Your task to perform on an android device: uninstall "PlayWell" Image 0: 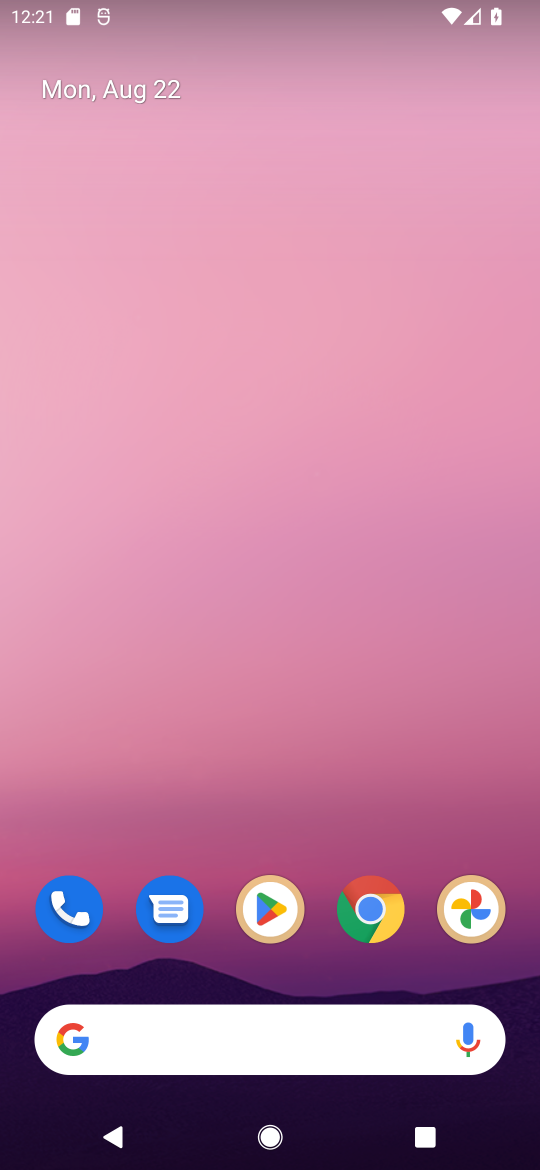
Step 0: click (271, 896)
Your task to perform on an android device: uninstall "PlayWell" Image 1: 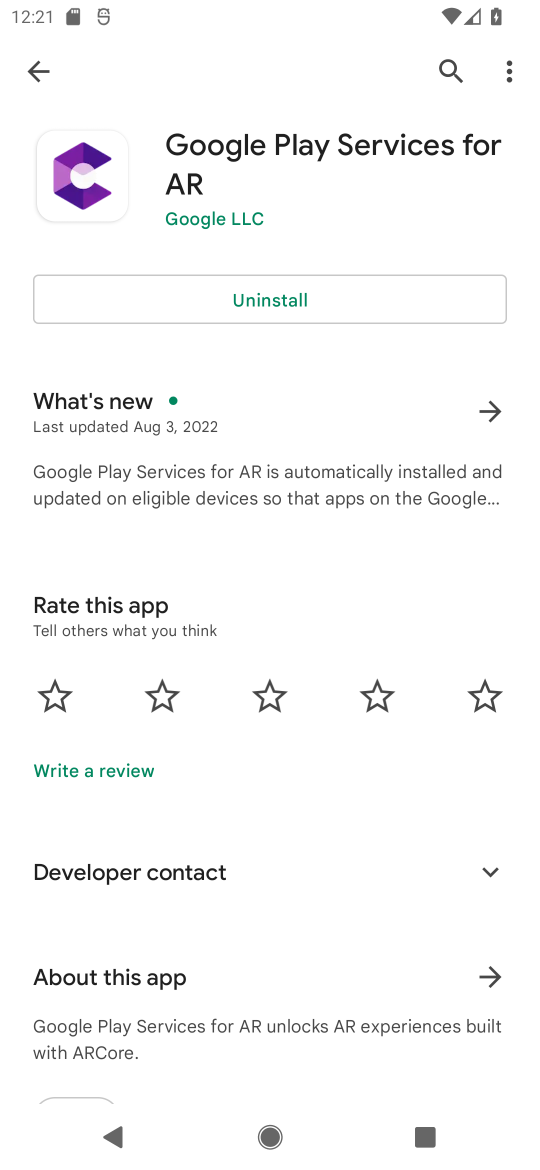
Step 1: click (455, 85)
Your task to perform on an android device: uninstall "PlayWell" Image 2: 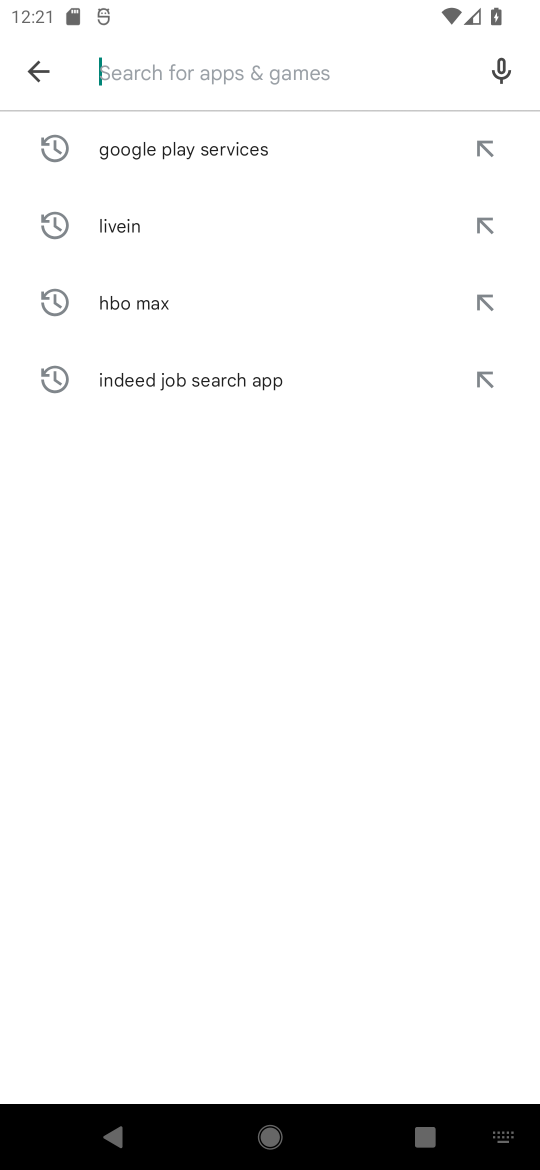
Step 2: click (258, 61)
Your task to perform on an android device: uninstall "PlayWell" Image 3: 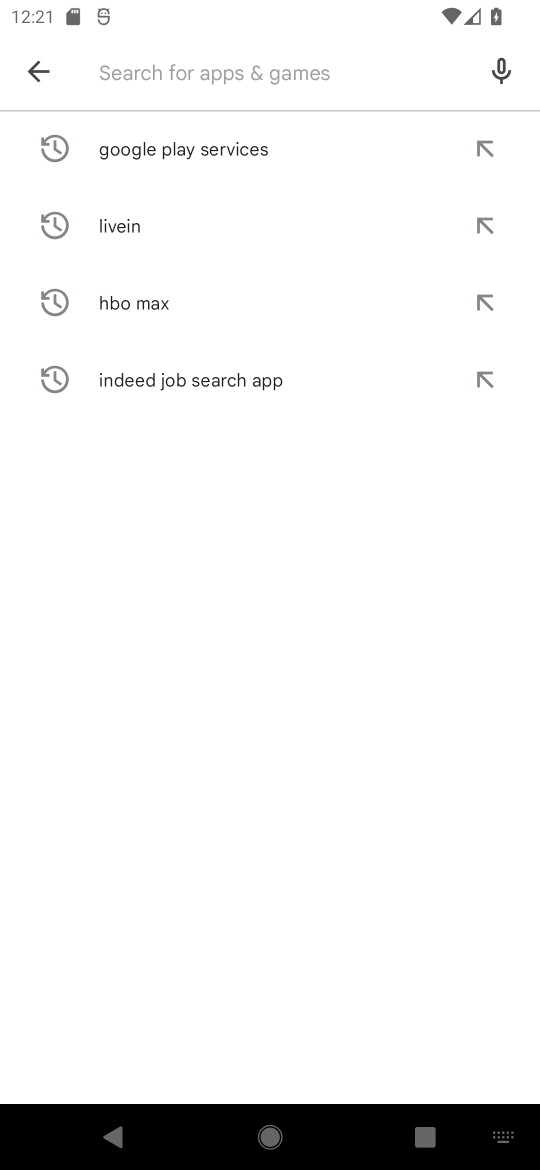
Step 3: type "playwell"
Your task to perform on an android device: uninstall "PlayWell" Image 4: 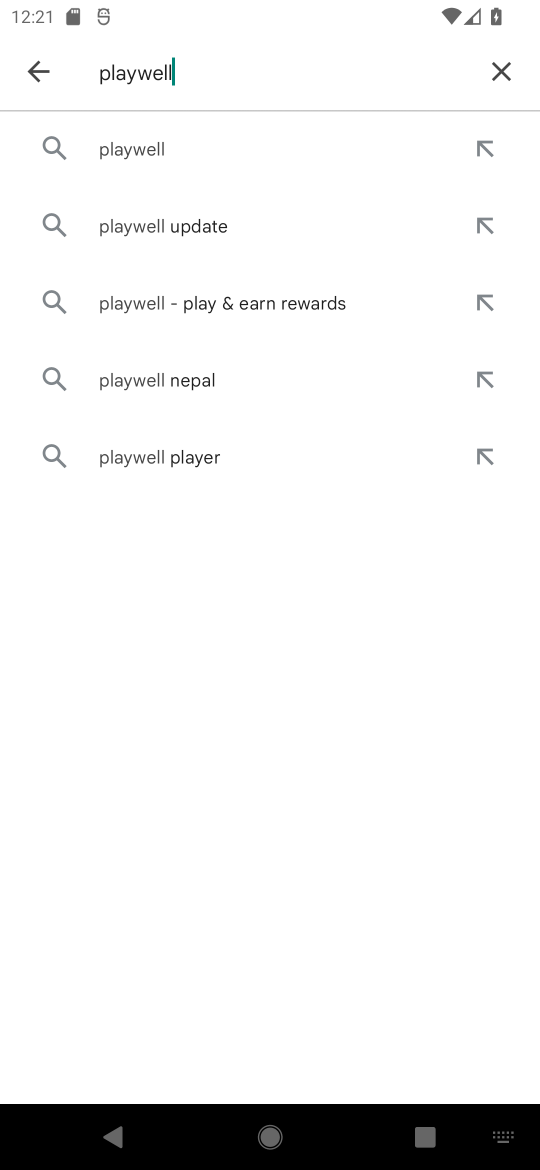
Step 4: click (129, 146)
Your task to perform on an android device: uninstall "PlayWell" Image 5: 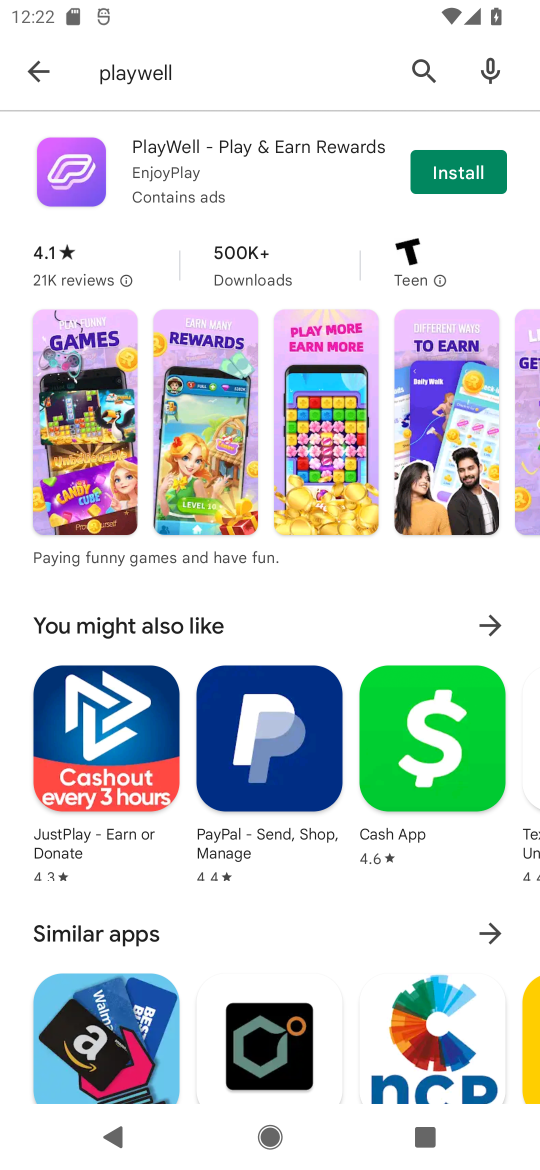
Step 5: click (200, 144)
Your task to perform on an android device: uninstall "PlayWell" Image 6: 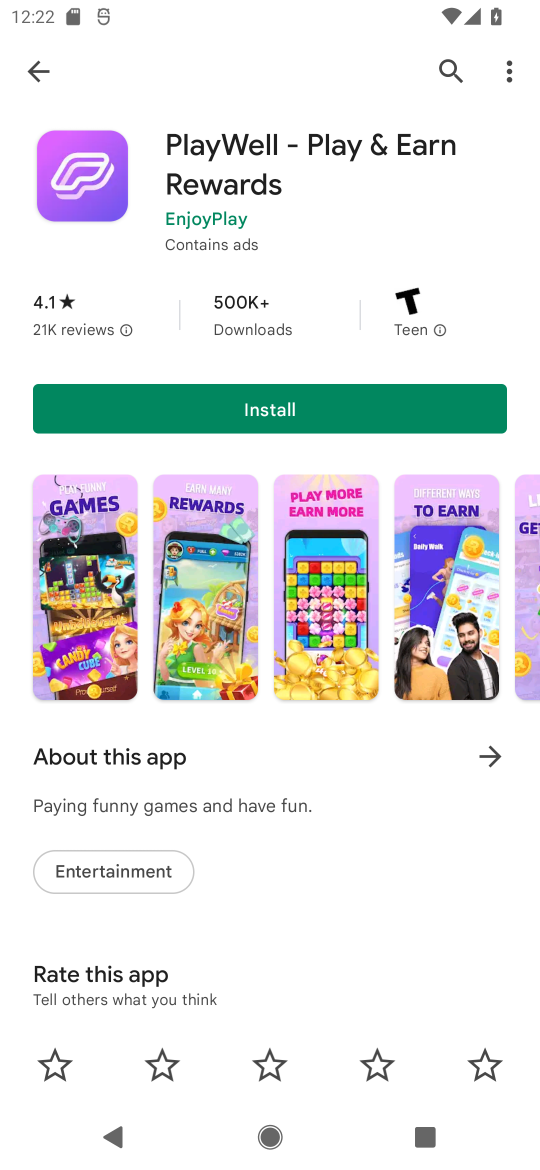
Step 6: task complete